Your task to perform on an android device: Open accessibility settings Image 0: 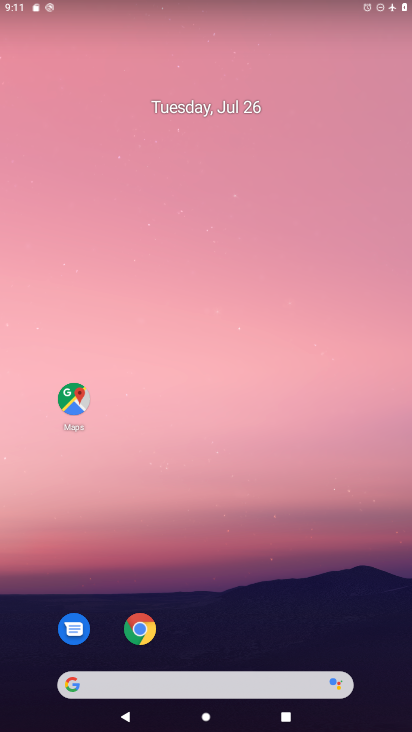
Step 0: drag from (214, 668) to (155, 79)
Your task to perform on an android device: Open accessibility settings Image 1: 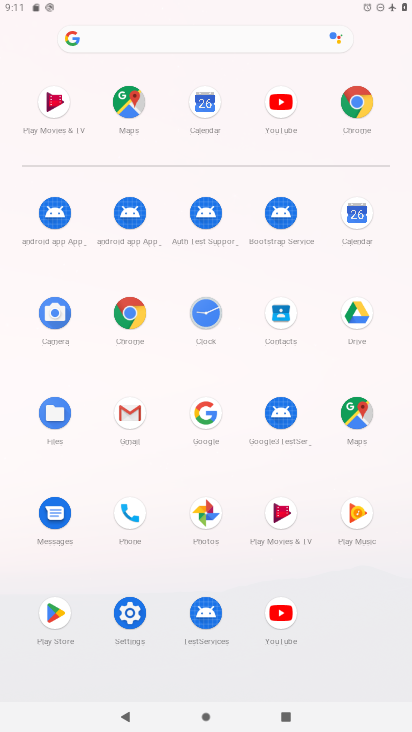
Step 1: click (119, 609)
Your task to perform on an android device: Open accessibility settings Image 2: 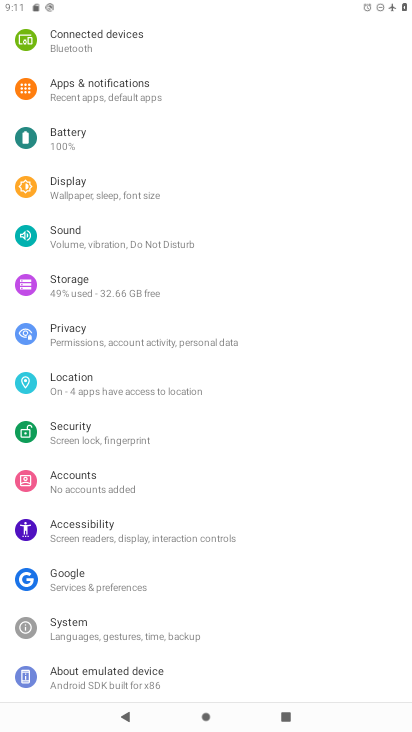
Step 2: click (115, 526)
Your task to perform on an android device: Open accessibility settings Image 3: 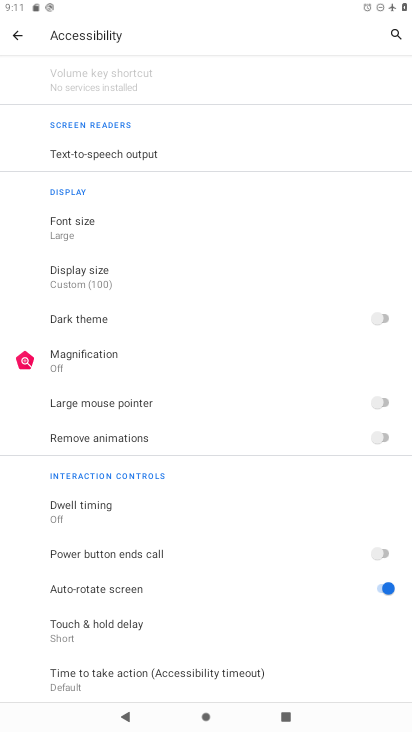
Step 3: task complete